Your task to perform on an android device: Open notification settings Image 0: 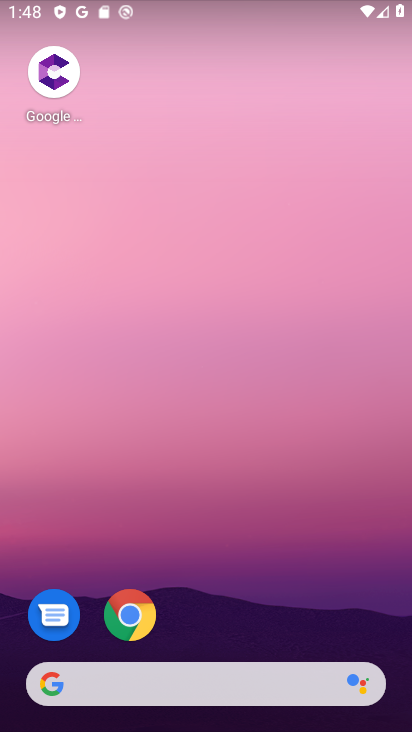
Step 0: drag from (253, 626) to (244, 24)
Your task to perform on an android device: Open notification settings Image 1: 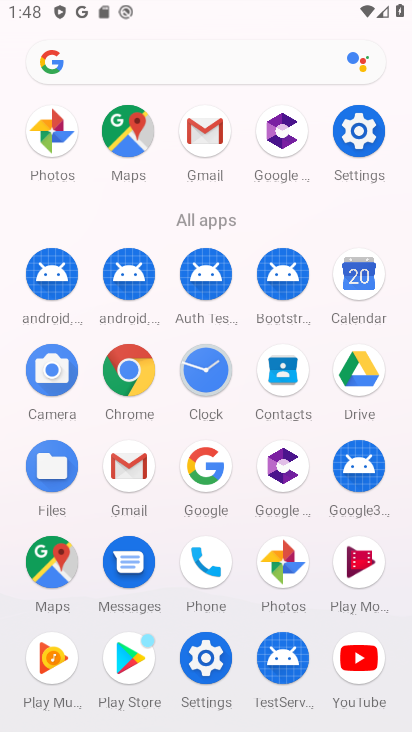
Step 1: click (364, 126)
Your task to perform on an android device: Open notification settings Image 2: 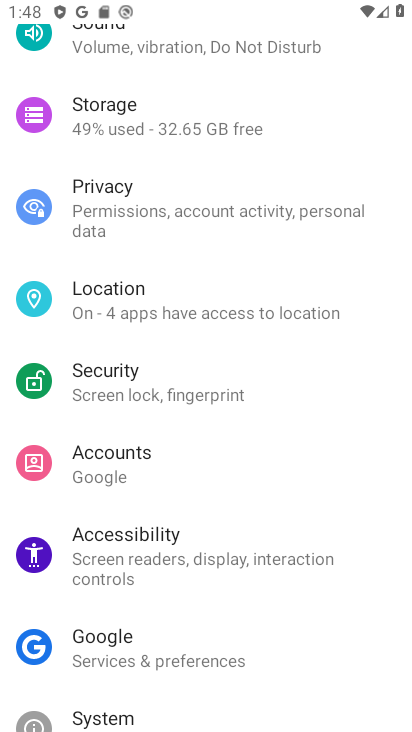
Step 2: drag from (248, 203) to (240, 688)
Your task to perform on an android device: Open notification settings Image 3: 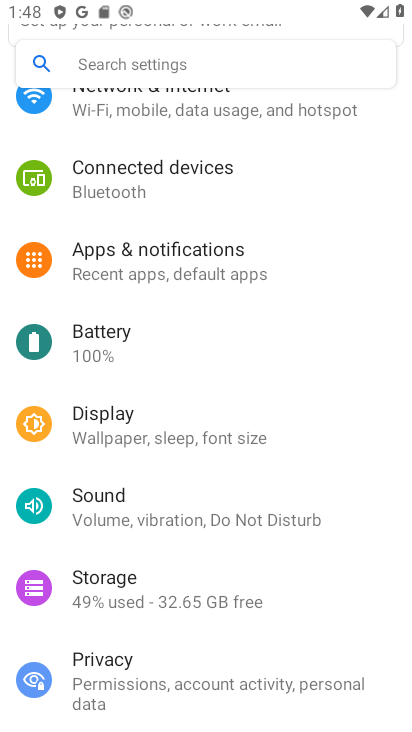
Step 3: click (213, 267)
Your task to perform on an android device: Open notification settings Image 4: 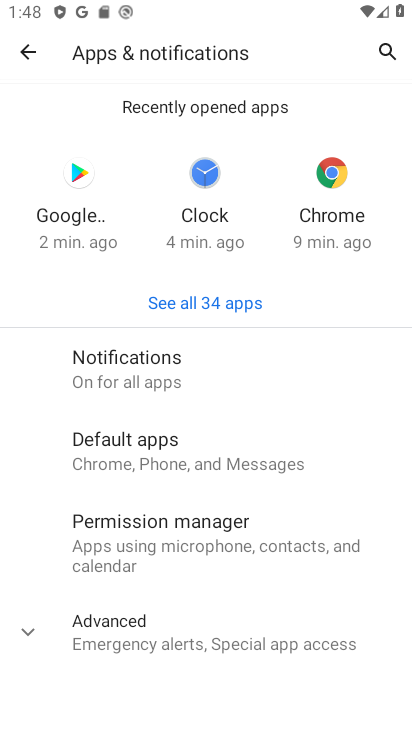
Step 4: click (205, 355)
Your task to perform on an android device: Open notification settings Image 5: 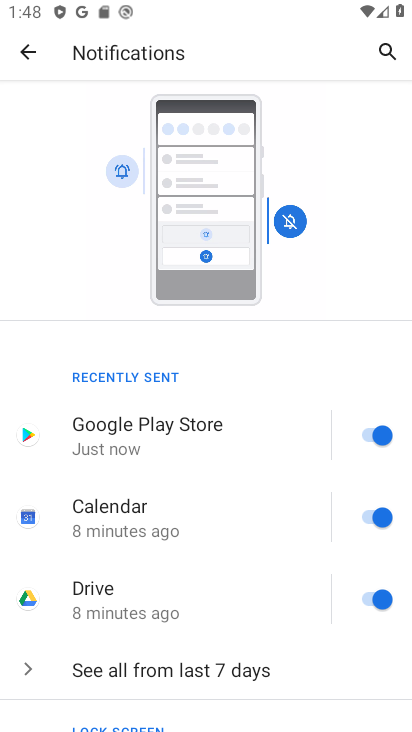
Step 5: task complete